Your task to perform on an android device: What's the weather going to be this weekend? Image 0: 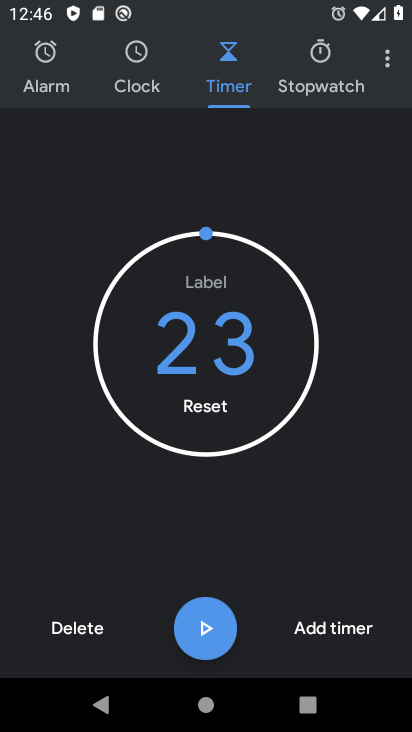
Step 0: press home button
Your task to perform on an android device: What's the weather going to be this weekend? Image 1: 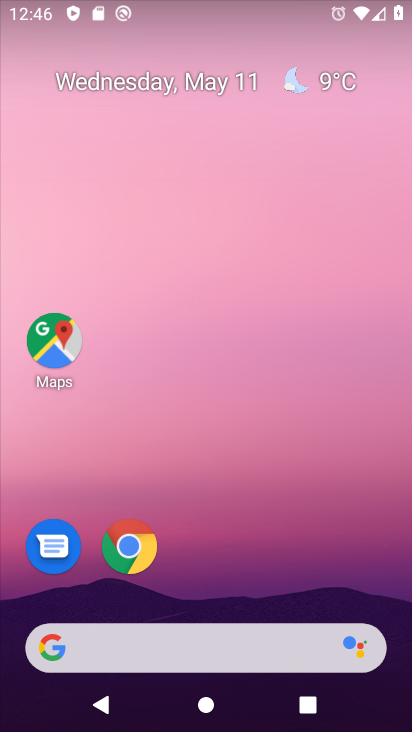
Step 1: drag from (170, 626) to (337, 168)
Your task to perform on an android device: What's the weather going to be this weekend? Image 2: 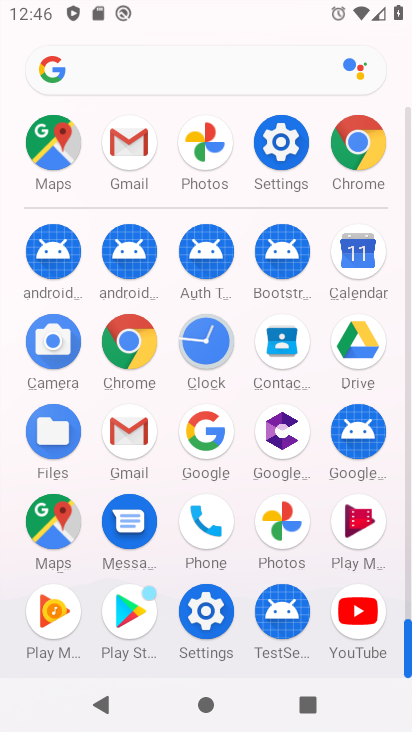
Step 2: click (207, 74)
Your task to perform on an android device: What's the weather going to be this weekend? Image 3: 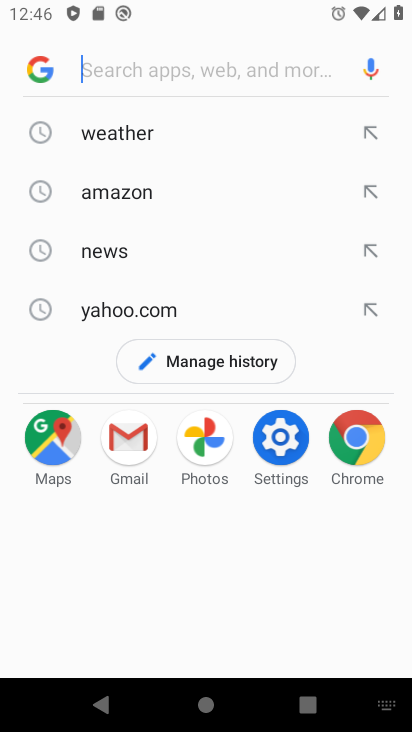
Step 3: type "waether weekend"
Your task to perform on an android device: What's the weather going to be this weekend? Image 4: 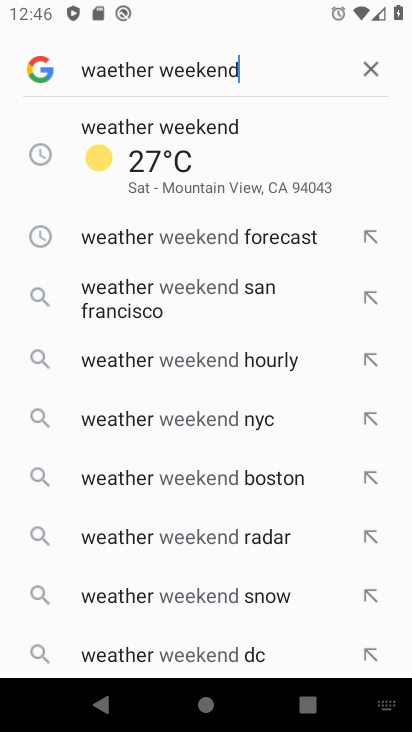
Step 4: click (190, 160)
Your task to perform on an android device: What's the weather going to be this weekend? Image 5: 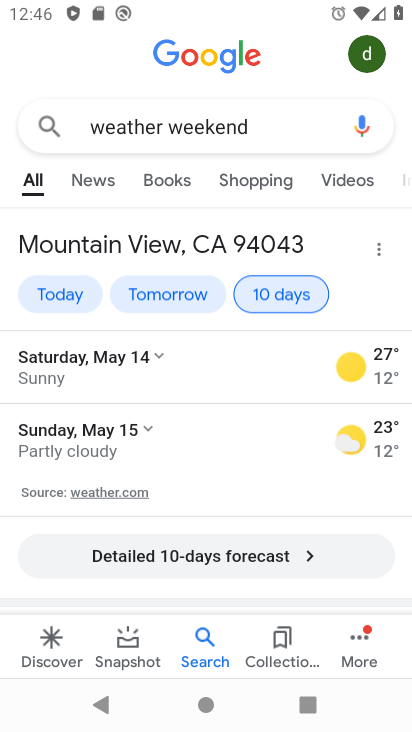
Step 5: task complete